Your task to perform on an android device: turn off picture-in-picture Image 0: 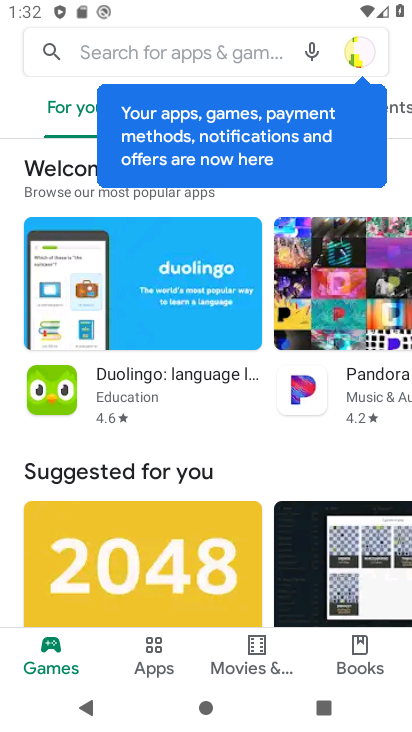
Step 0: press home button
Your task to perform on an android device: turn off picture-in-picture Image 1: 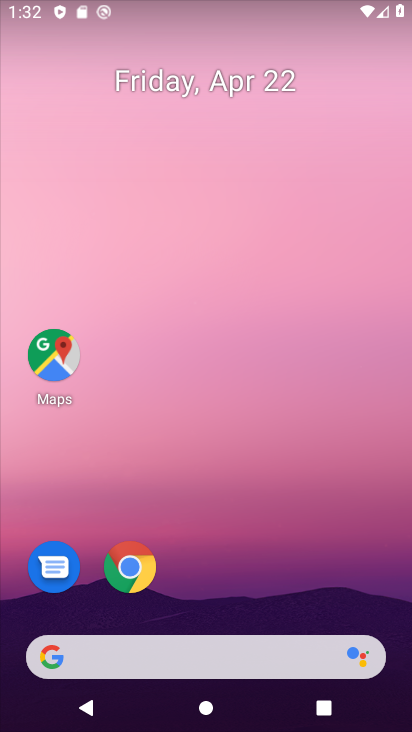
Step 1: click (133, 568)
Your task to perform on an android device: turn off picture-in-picture Image 2: 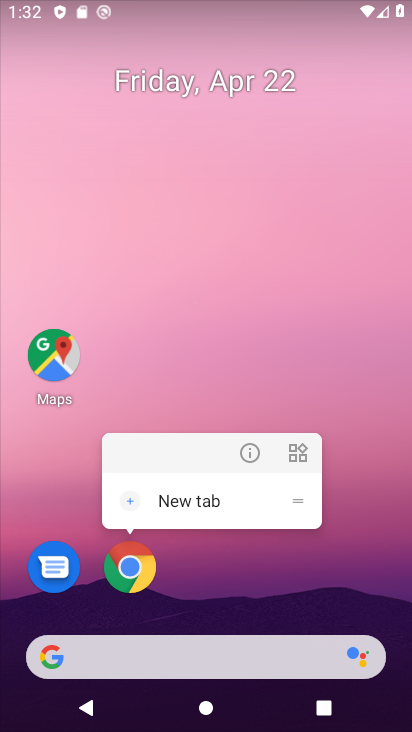
Step 2: click (251, 459)
Your task to perform on an android device: turn off picture-in-picture Image 3: 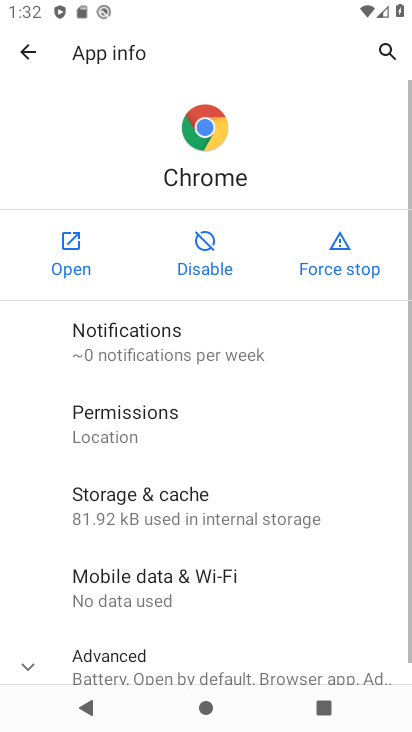
Step 3: drag from (225, 557) to (274, 86)
Your task to perform on an android device: turn off picture-in-picture Image 4: 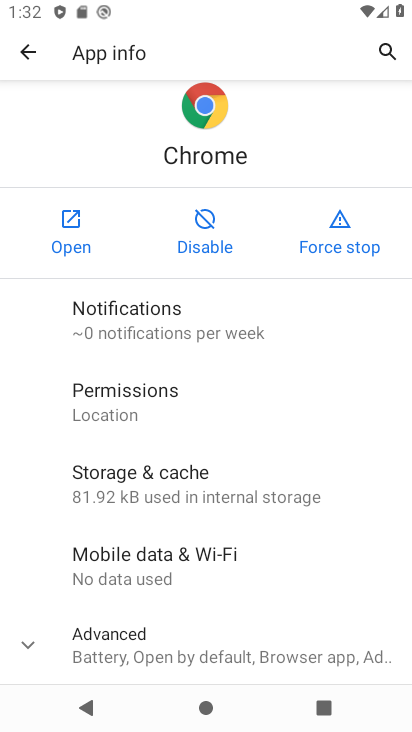
Step 4: click (246, 644)
Your task to perform on an android device: turn off picture-in-picture Image 5: 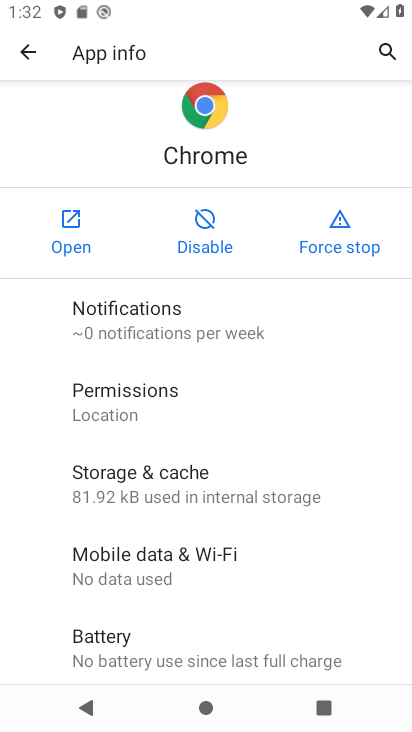
Step 5: drag from (230, 602) to (252, 132)
Your task to perform on an android device: turn off picture-in-picture Image 6: 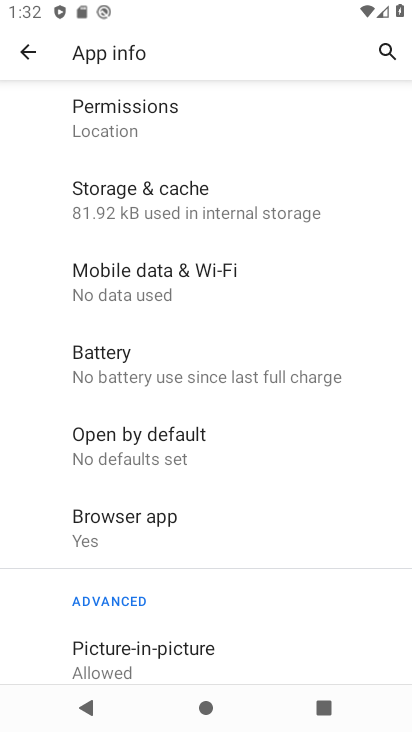
Step 6: drag from (254, 585) to (268, 153)
Your task to perform on an android device: turn off picture-in-picture Image 7: 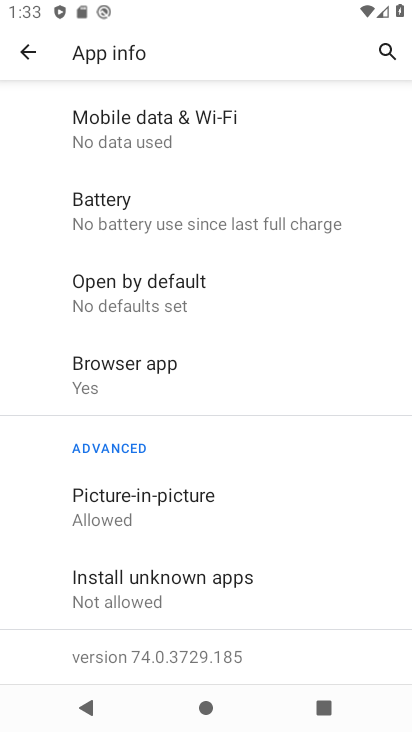
Step 7: click (147, 511)
Your task to perform on an android device: turn off picture-in-picture Image 8: 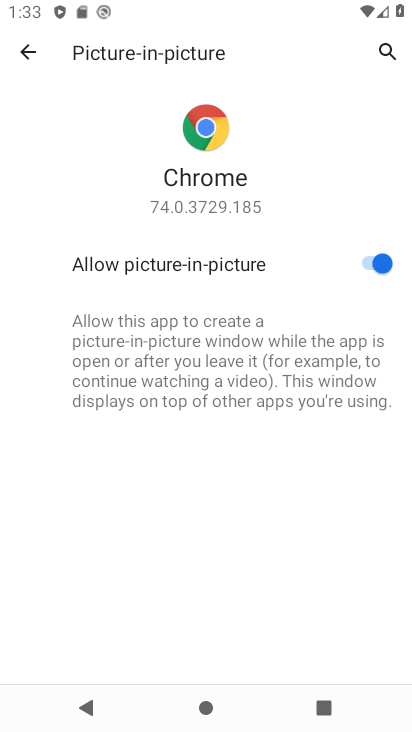
Step 8: click (363, 259)
Your task to perform on an android device: turn off picture-in-picture Image 9: 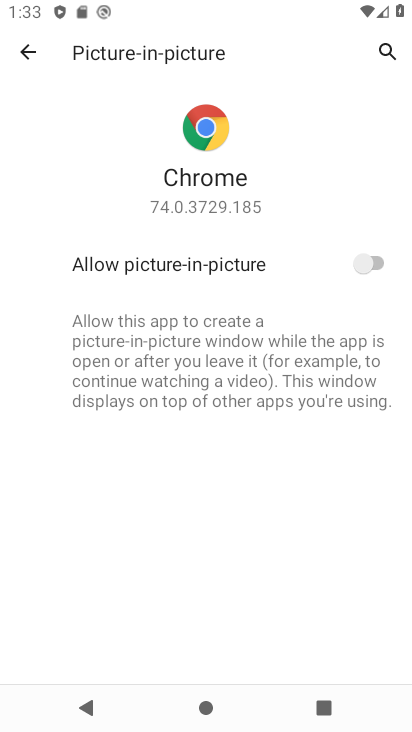
Step 9: task complete